Your task to perform on an android device: Search for pizza restaurants on Maps Image 0: 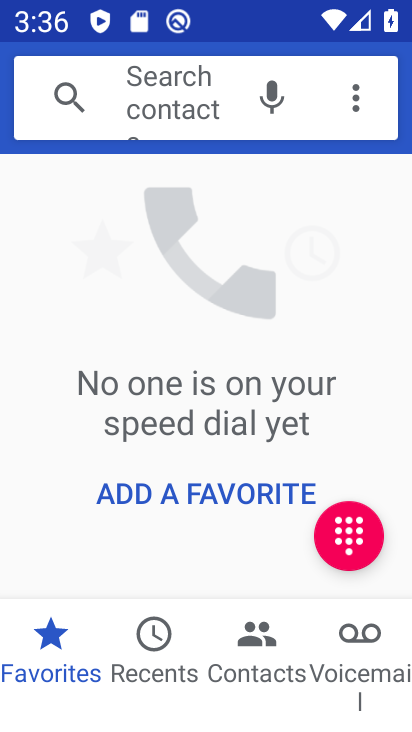
Step 0: press home button
Your task to perform on an android device: Search for pizza restaurants on Maps Image 1: 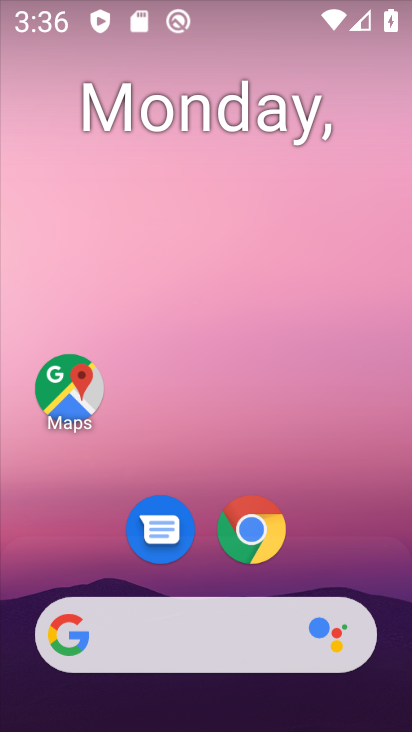
Step 1: drag from (212, 722) to (193, 277)
Your task to perform on an android device: Search for pizza restaurants on Maps Image 2: 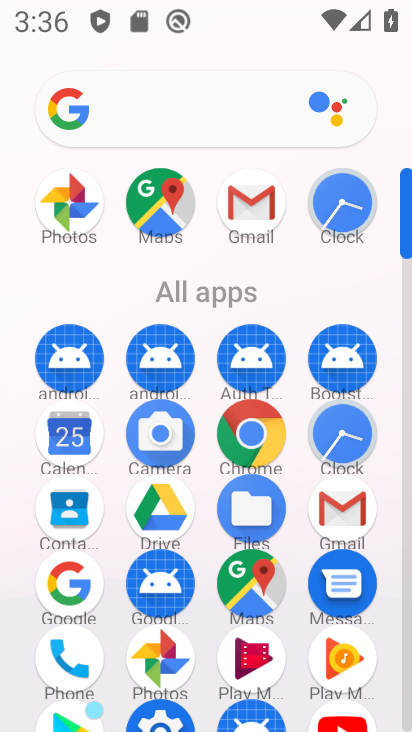
Step 2: click (249, 584)
Your task to perform on an android device: Search for pizza restaurants on Maps Image 3: 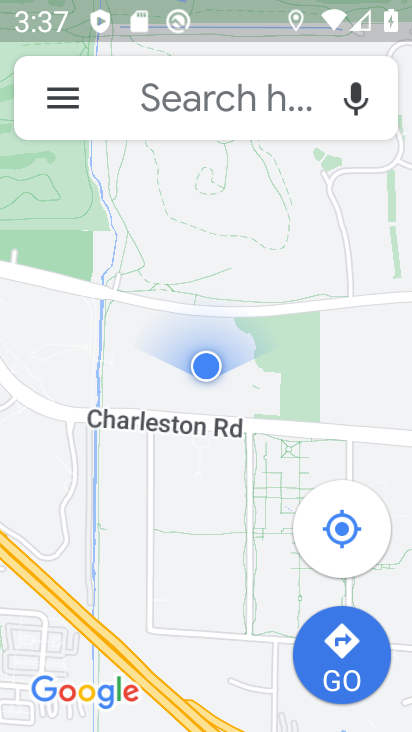
Step 3: click (211, 98)
Your task to perform on an android device: Search for pizza restaurants on Maps Image 4: 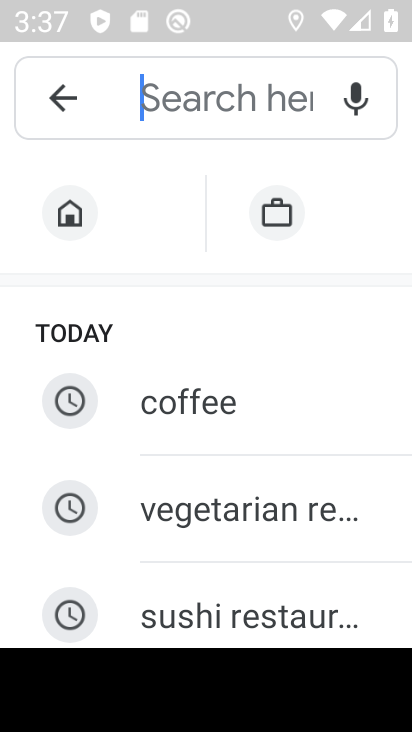
Step 4: type "pizza restaurants"
Your task to perform on an android device: Search for pizza restaurants on Maps Image 5: 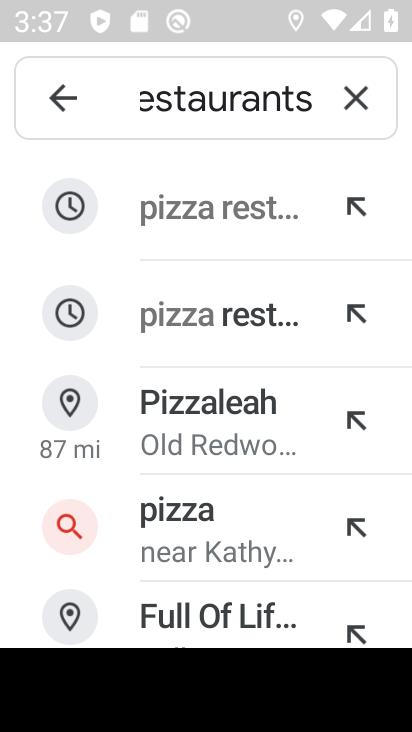
Step 5: click (238, 209)
Your task to perform on an android device: Search for pizza restaurants on Maps Image 6: 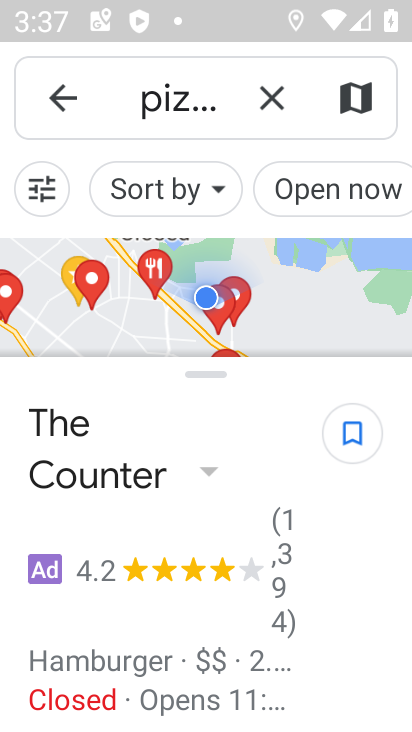
Step 6: task complete